Your task to perform on an android device: clear all cookies in the chrome app Image 0: 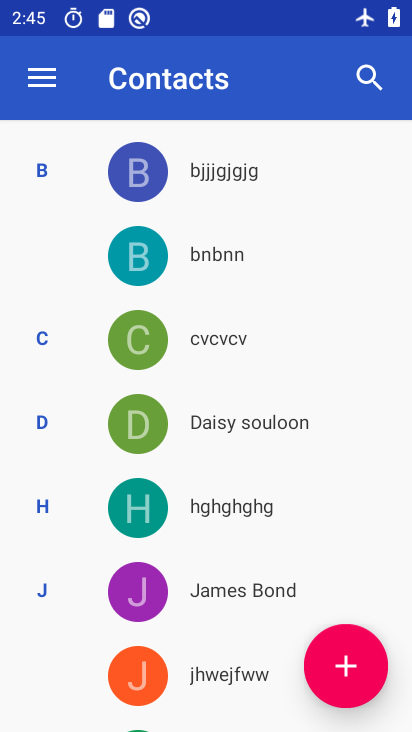
Step 0: press home button
Your task to perform on an android device: clear all cookies in the chrome app Image 1: 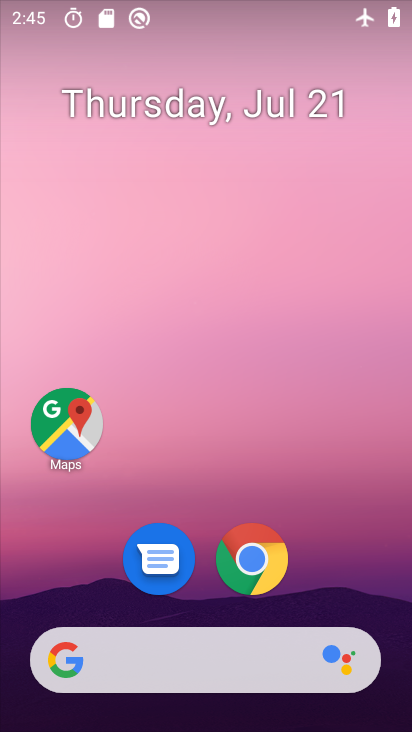
Step 1: drag from (353, 540) to (375, 55)
Your task to perform on an android device: clear all cookies in the chrome app Image 2: 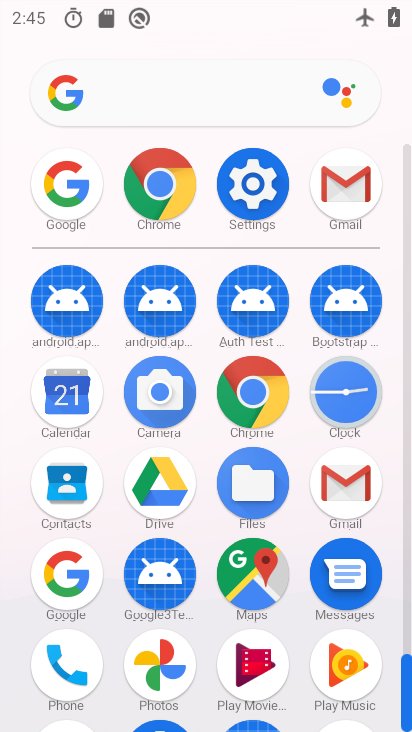
Step 2: click (263, 401)
Your task to perform on an android device: clear all cookies in the chrome app Image 3: 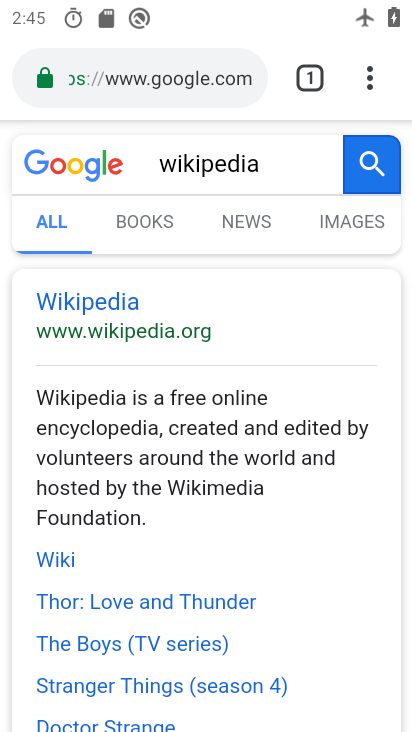
Step 3: click (370, 82)
Your task to perform on an android device: clear all cookies in the chrome app Image 4: 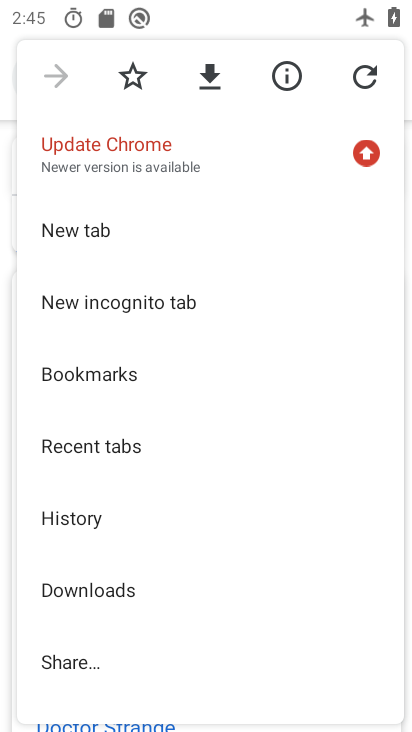
Step 4: drag from (297, 350) to (299, 293)
Your task to perform on an android device: clear all cookies in the chrome app Image 5: 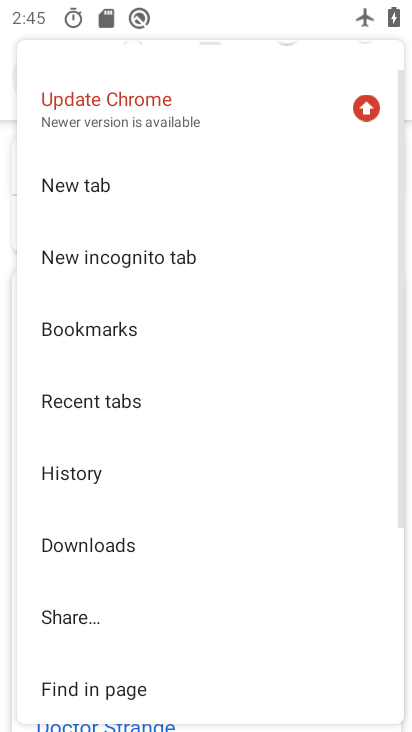
Step 5: drag from (288, 390) to (288, 327)
Your task to perform on an android device: clear all cookies in the chrome app Image 6: 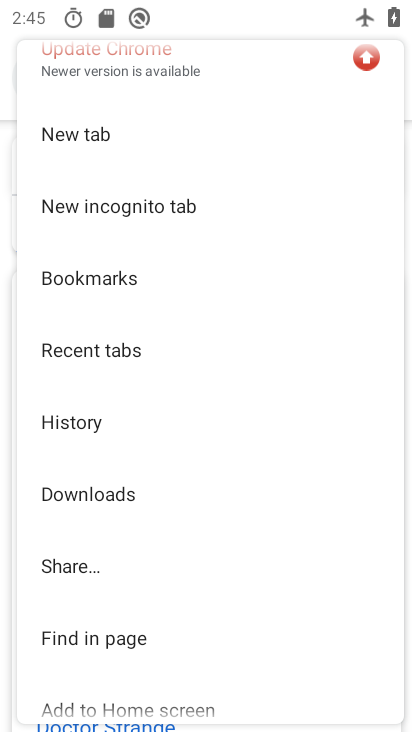
Step 6: drag from (268, 381) to (269, 309)
Your task to perform on an android device: clear all cookies in the chrome app Image 7: 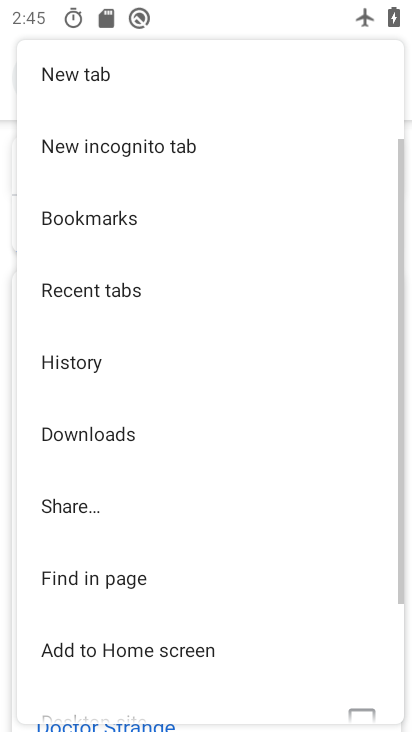
Step 7: drag from (264, 384) to (264, 304)
Your task to perform on an android device: clear all cookies in the chrome app Image 8: 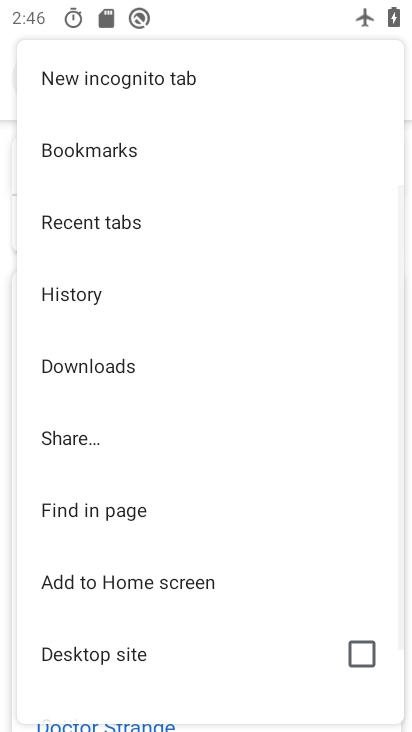
Step 8: drag from (265, 381) to (265, 308)
Your task to perform on an android device: clear all cookies in the chrome app Image 9: 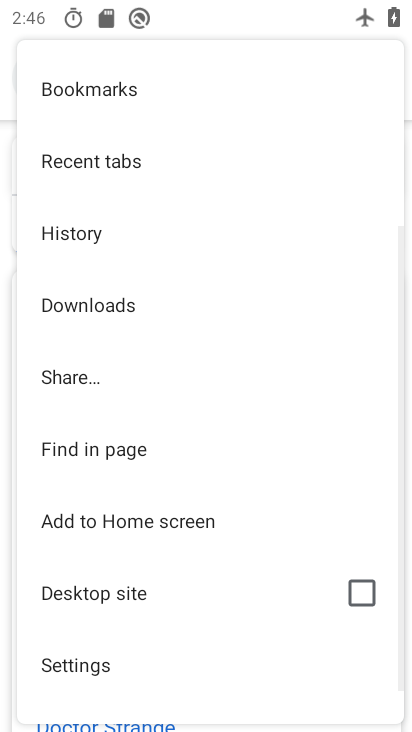
Step 9: drag from (262, 387) to (262, 308)
Your task to perform on an android device: clear all cookies in the chrome app Image 10: 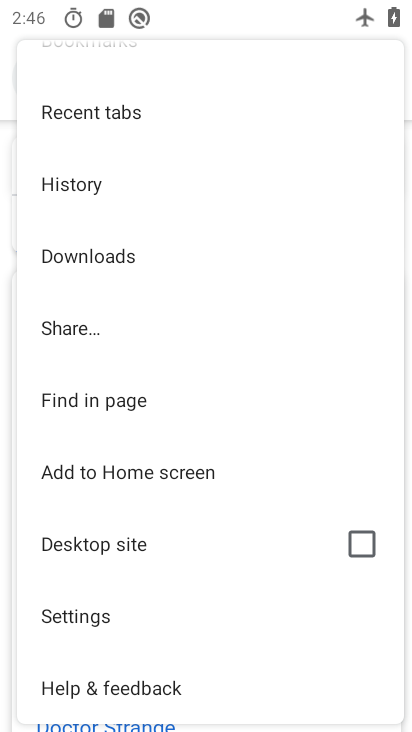
Step 10: click (213, 612)
Your task to perform on an android device: clear all cookies in the chrome app Image 11: 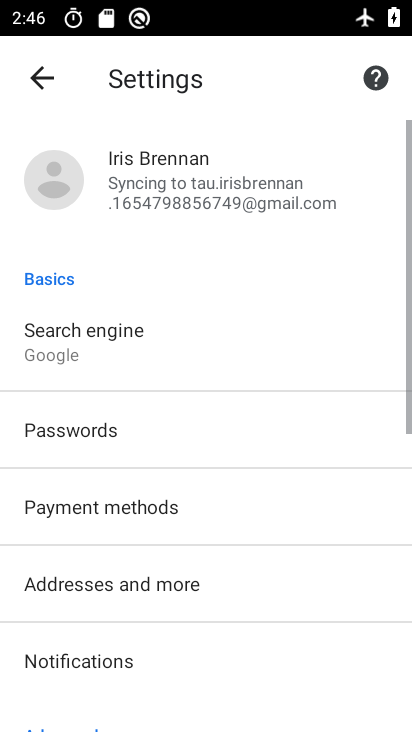
Step 11: drag from (286, 529) to (289, 456)
Your task to perform on an android device: clear all cookies in the chrome app Image 12: 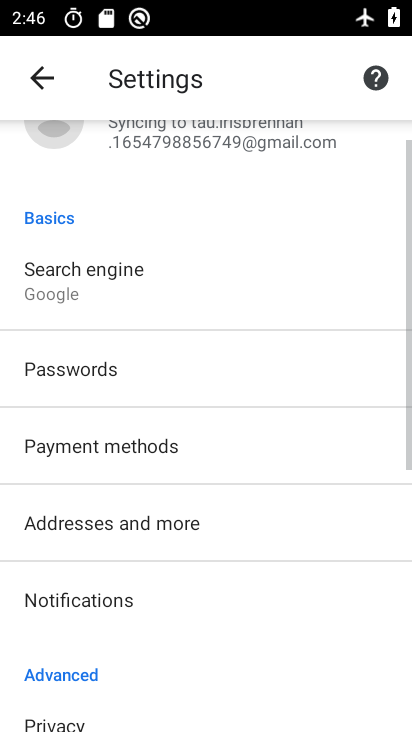
Step 12: drag from (289, 507) to (289, 425)
Your task to perform on an android device: clear all cookies in the chrome app Image 13: 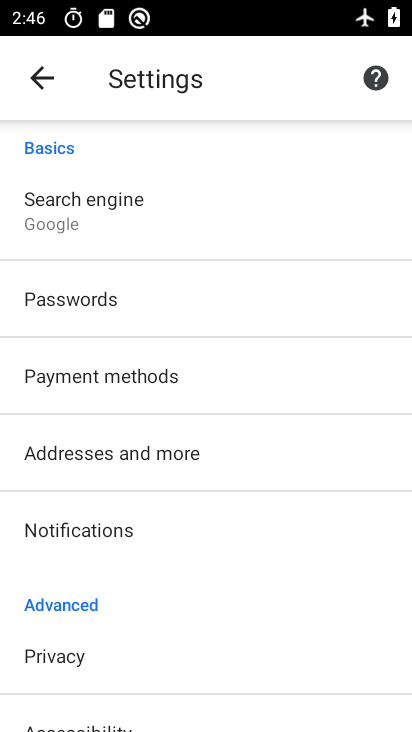
Step 13: drag from (288, 537) to (288, 442)
Your task to perform on an android device: clear all cookies in the chrome app Image 14: 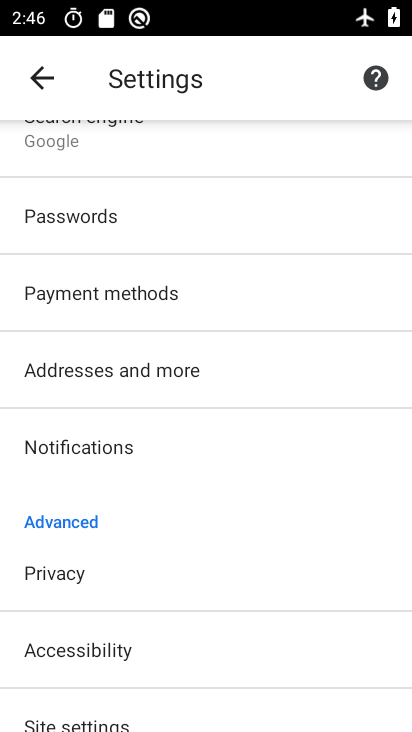
Step 14: drag from (288, 517) to (293, 393)
Your task to perform on an android device: clear all cookies in the chrome app Image 15: 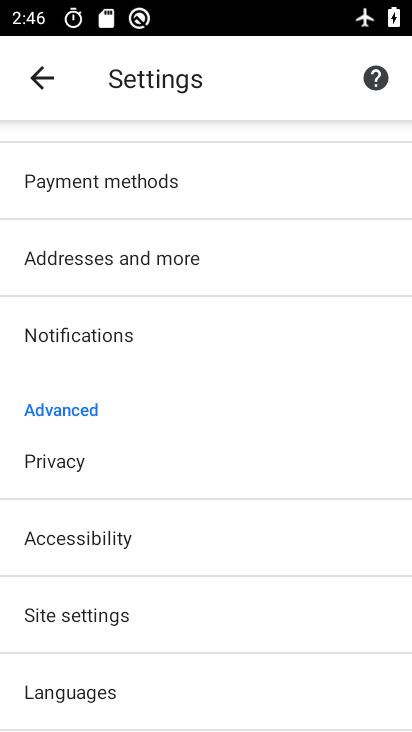
Step 15: drag from (305, 534) to (305, 425)
Your task to perform on an android device: clear all cookies in the chrome app Image 16: 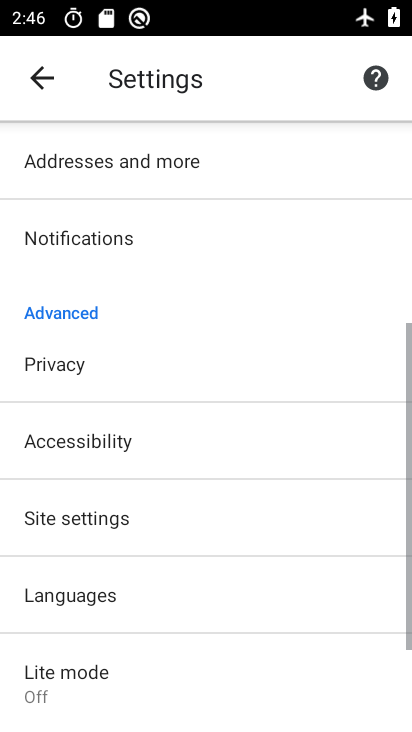
Step 16: click (234, 385)
Your task to perform on an android device: clear all cookies in the chrome app Image 17: 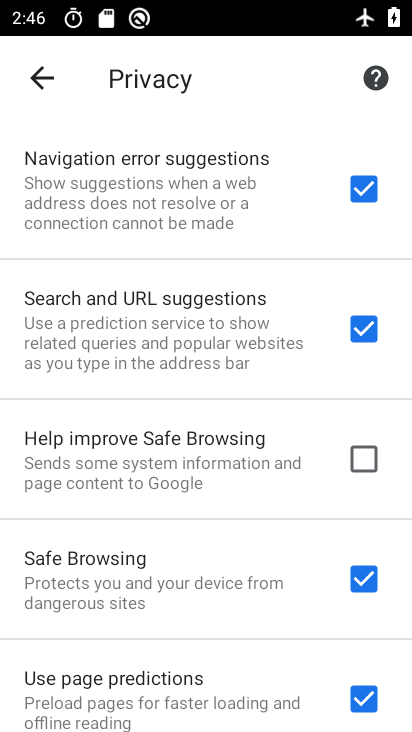
Step 17: drag from (269, 559) to (278, 466)
Your task to perform on an android device: clear all cookies in the chrome app Image 18: 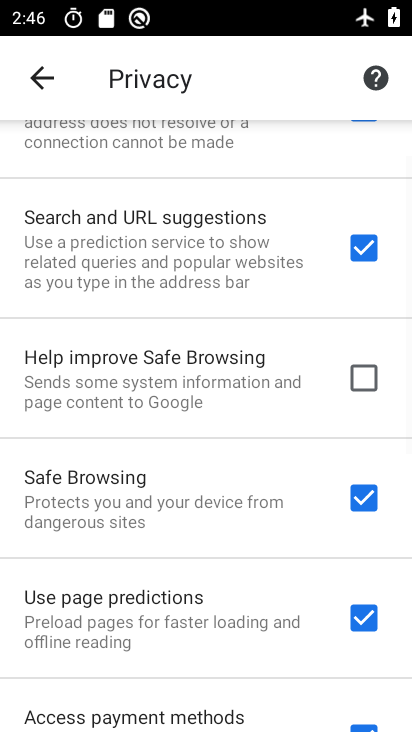
Step 18: drag from (278, 570) to (284, 465)
Your task to perform on an android device: clear all cookies in the chrome app Image 19: 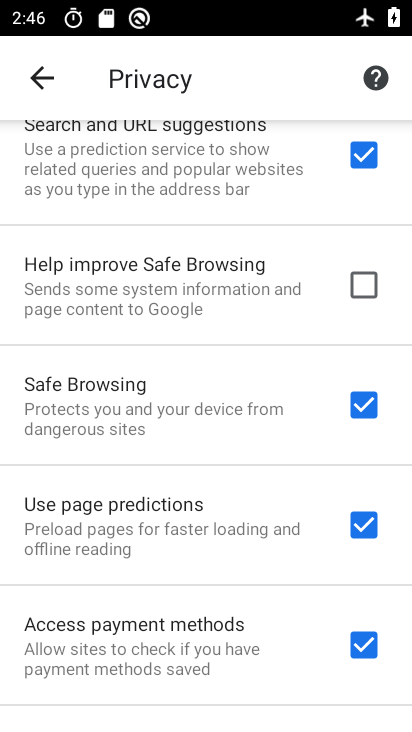
Step 19: drag from (286, 557) to (287, 463)
Your task to perform on an android device: clear all cookies in the chrome app Image 20: 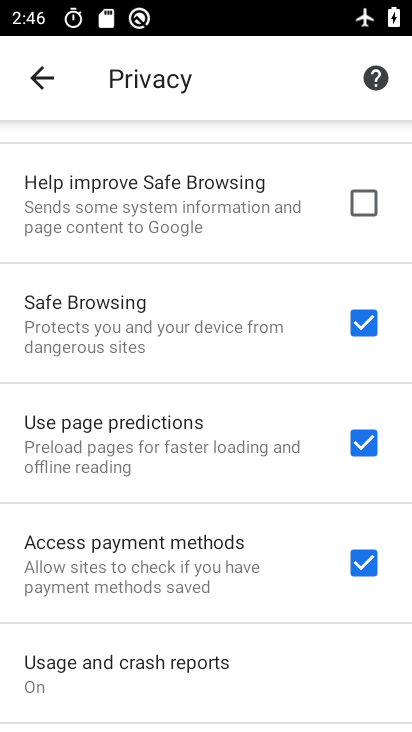
Step 20: drag from (288, 544) to (289, 440)
Your task to perform on an android device: clear all cookies in the chrome app Image 21: 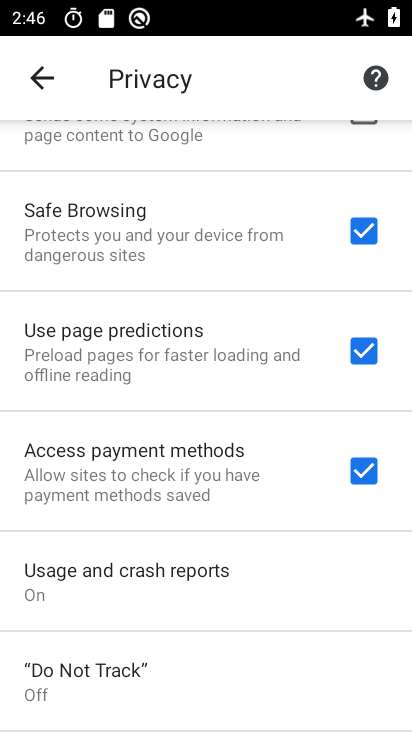
Step 21: drag from (289, 549) to (291, 407)
Your task to perform on an android device: clear all cookies in the chrome app Image 22: 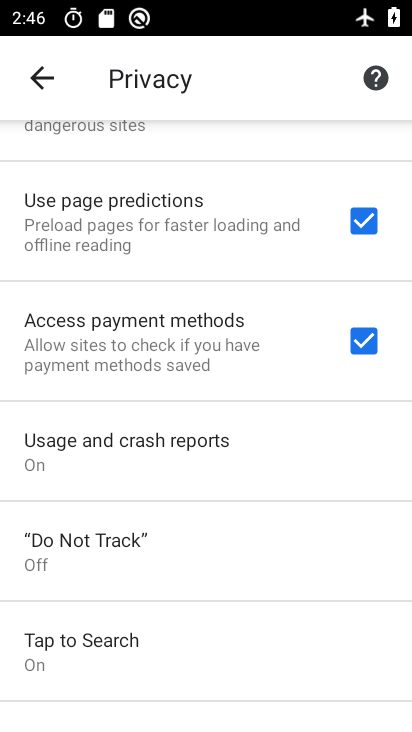
Step 22: drag from (273, 567) to (278, 418)
Your task to perform on an android device: clear all cookies in the chrome app Image 23: 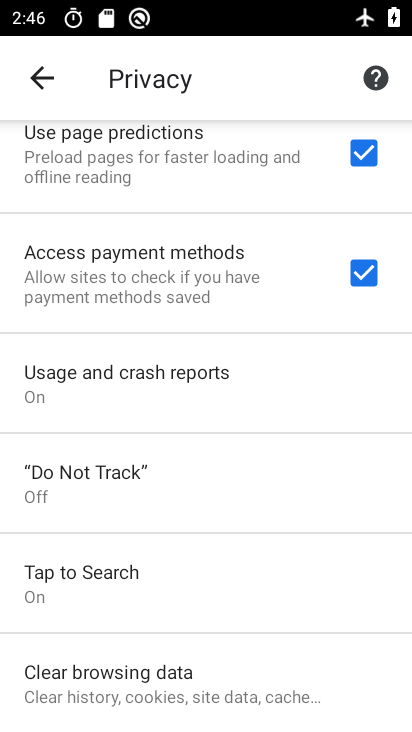
Step 23: click (254, 683)
Your task to perform on an android device: clear all cookies in the chrome app Image 24: 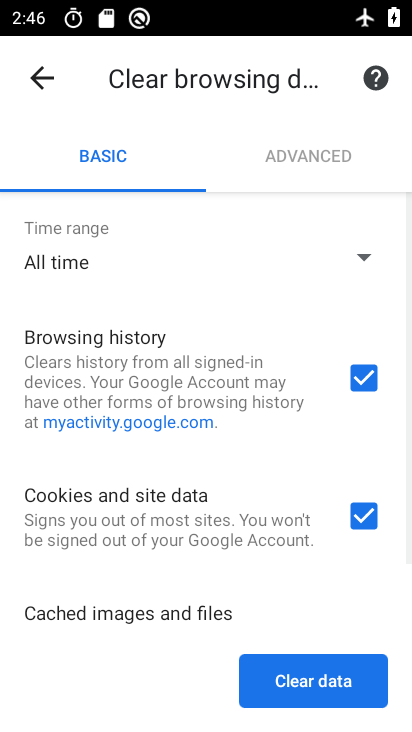
Step 24: click (316, 693)
Your task to perform on an android device: clear all cookies in the chrome app Image 25: 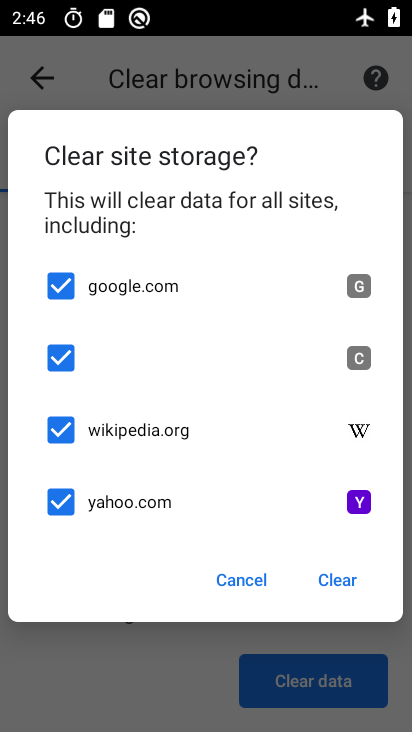
Step 25: click (345, 574)
Your task to perform on an android device: clear all cookies in the chrome app Image 26: 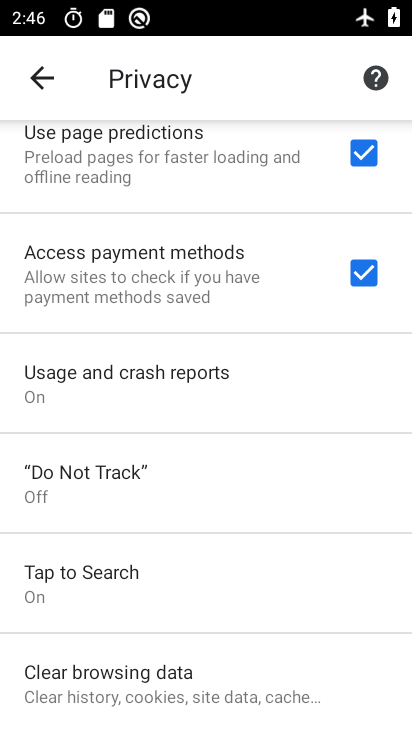
Step 26: task complete